Your task to perform on an android device: Go to display settings Image 0: 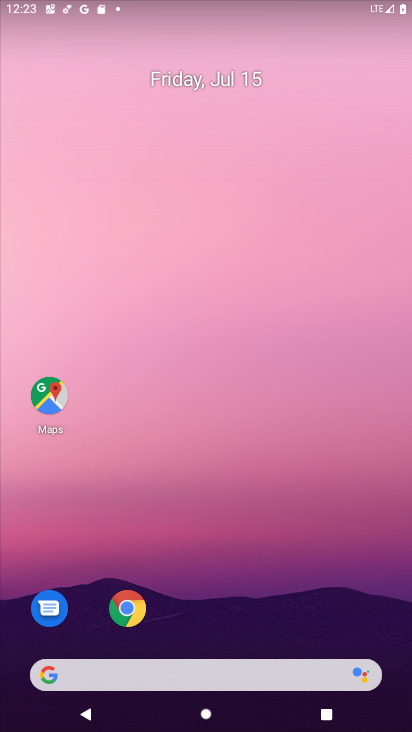
Step 0: drag from (256, 549) to (171, 72)
Your task to perform on an android device: Go to display settings Image 1: 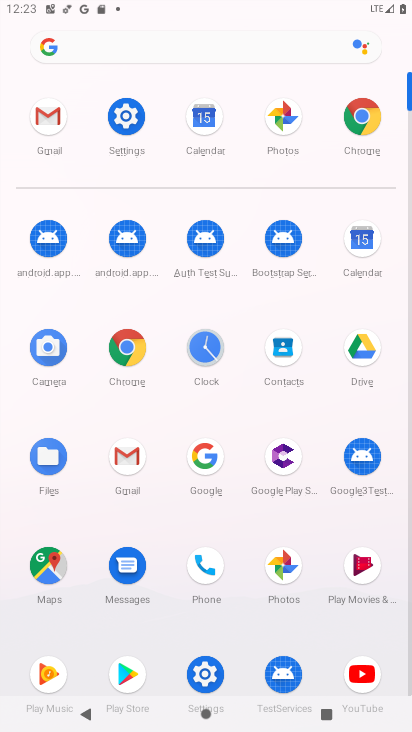
Step 1: click (125, 121)
Your task to perform on an android device: Go to display settings Image 2: 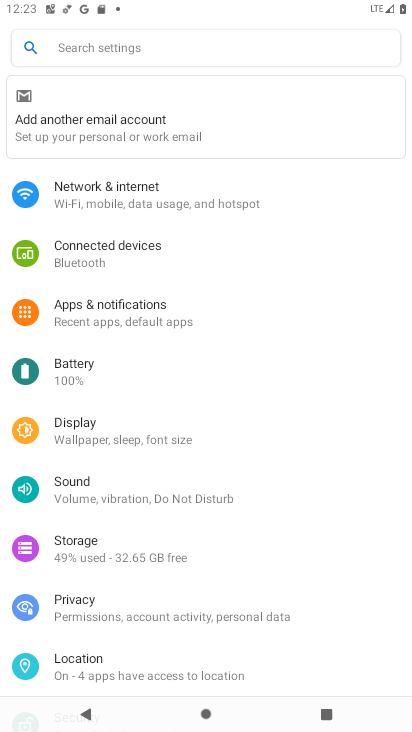
Step 2: click (80, 422)
Your task to perform on an android device: Go to display settings Image 3: 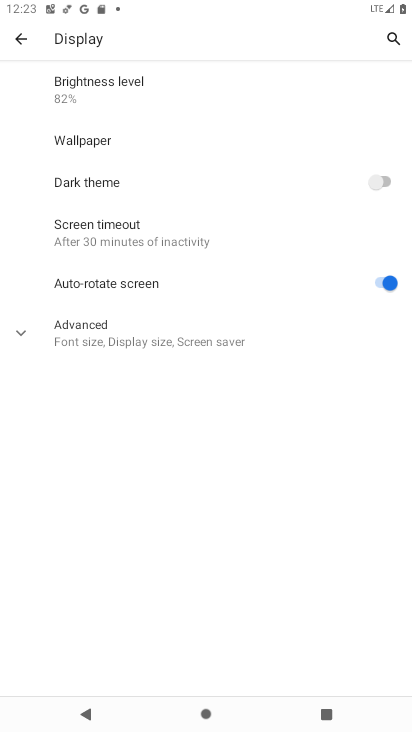
Step 3: task complete